Your task to perform on an android device: Open Amazon Image 0: 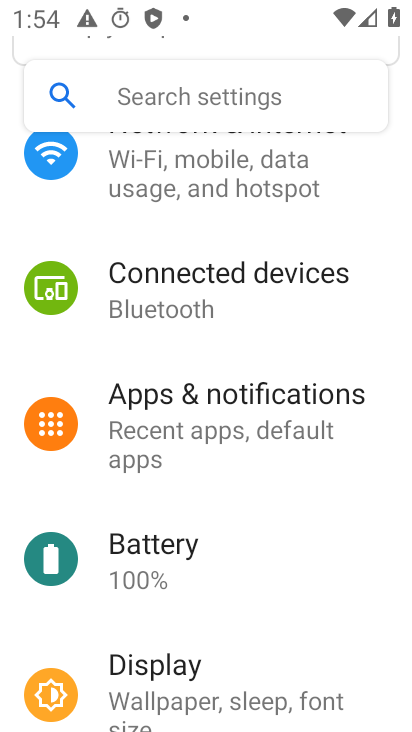
Step 0: press home button
Your task to perform on an android device: Open Amazon Image 1: 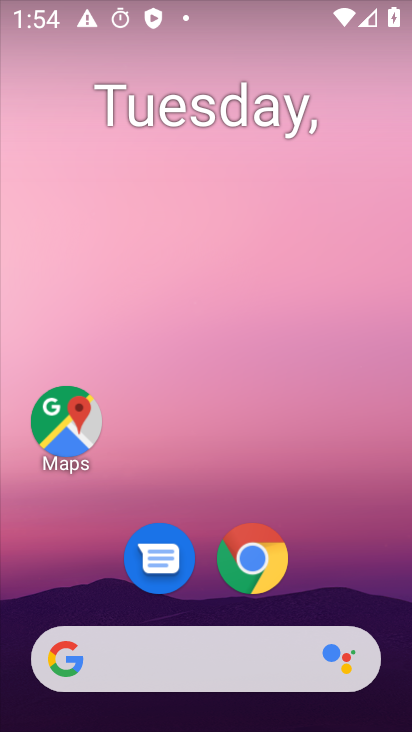
Step 1: click (254, 562)
Your task to perform on an android device: Open Amazon Image 2: 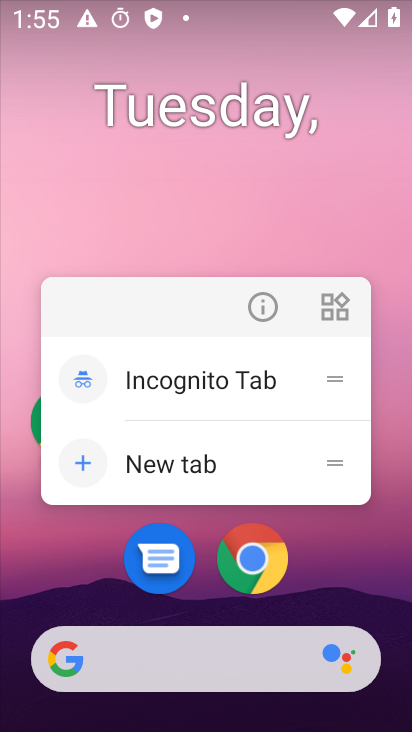
Step 2: click (265, 578)
Your task to perform on an android device: Open Amazon Image 3: 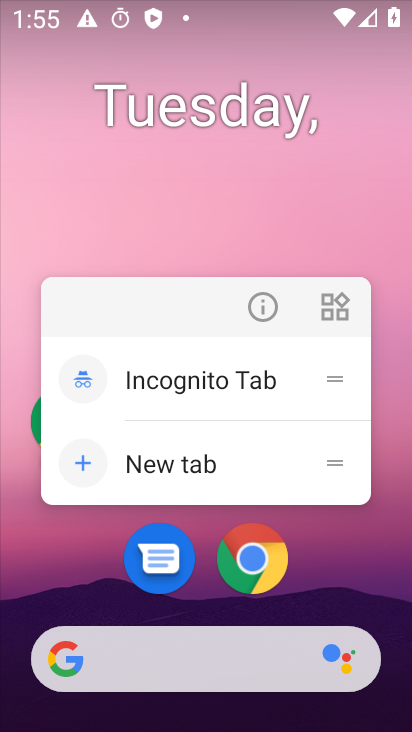
Step 3: click (267, 557)
Your task to perform on an android device: Open Amazon Image 4: 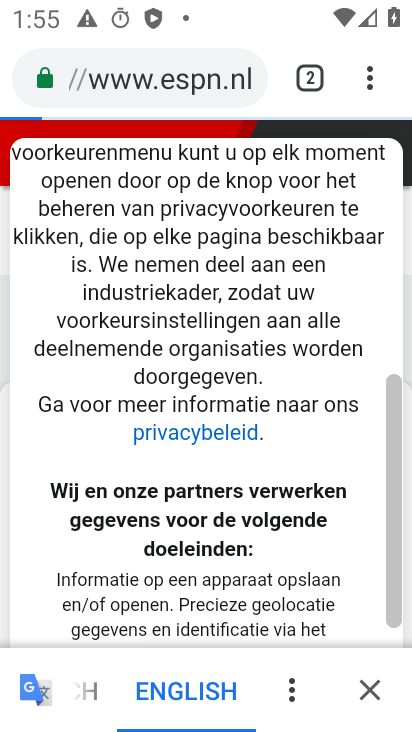
Step 4: click (303, 80)
Your task to perform on an android device: Open Amazon Image 5: 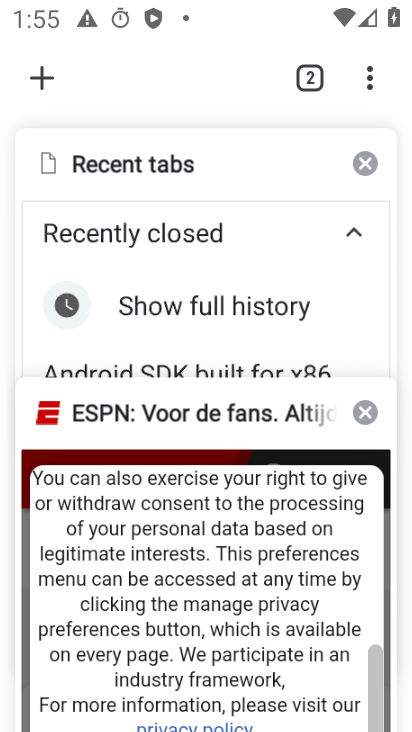
Step 5: click (36, 76)
Your task to perform on an android device: Open Amazon Image 6: 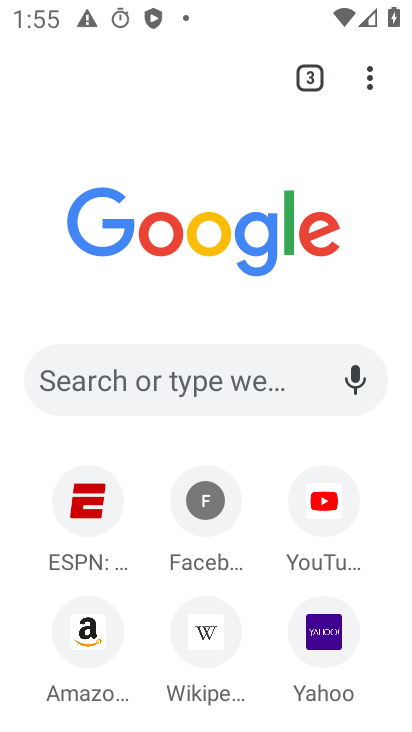
Step 6: click (102, 633)
Your task to perform on an android device: Open Amazon Image 7: 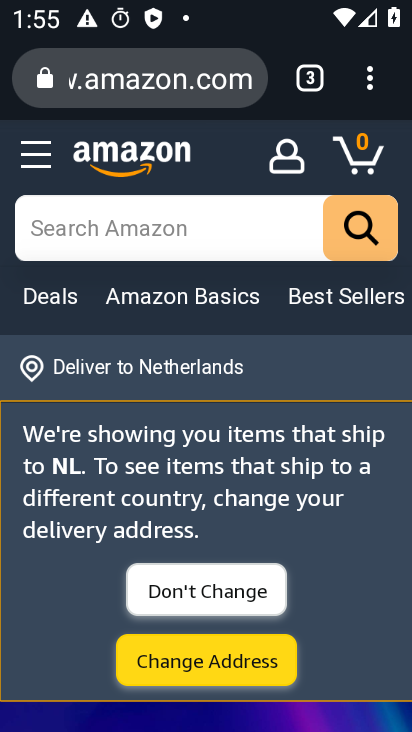
Step 7: task complete